Your task to perform on an android device: turn on the 24-hour format for clock Image 0: 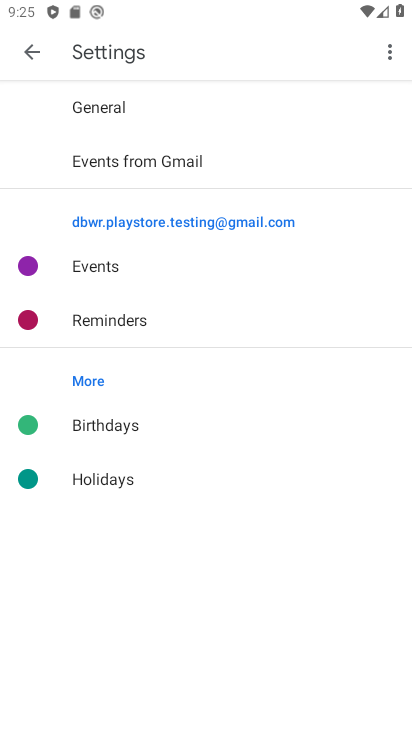
Step 0: press home button
Your task to perform on an android device: turn on the 24-hour format for clock Image 1: 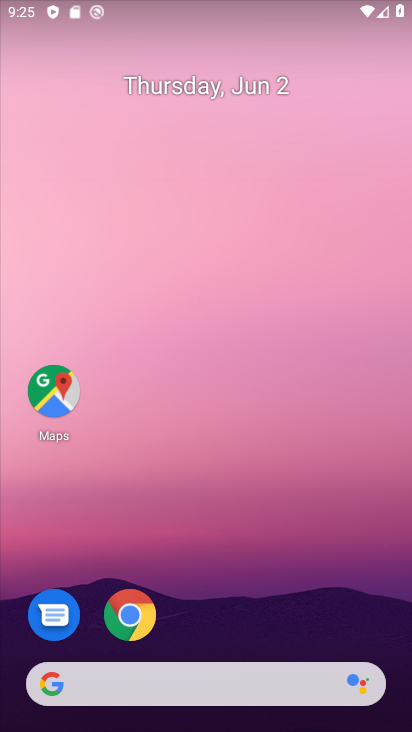
Step 1: drag from (209, 604) to (318, 143)
Your task to perform on an android device: turn on the 24-hour format for clock Image 2: 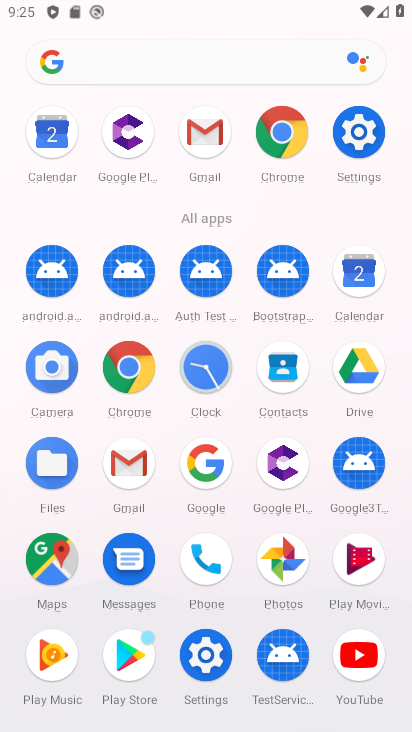
Step 2: click (214, 376)
Your task to perform on an android device: turn on the 24-hour format for clock Image 3: 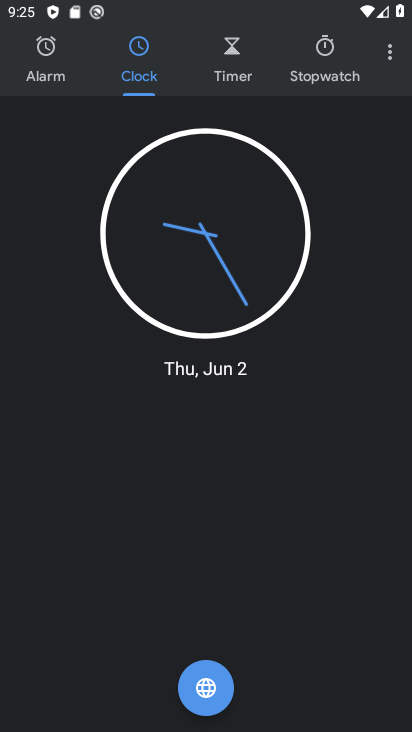
Step 3: click (391, 50)
Your task to perform on an android device: turn on the 24-hour format for clock Image 4: 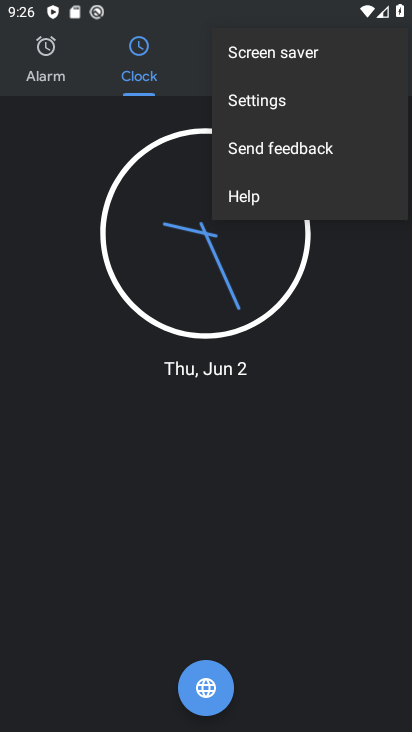
Step 4: click (302, 115)
Your task to perform on an android device: turn on the 24-hour format for clock Image 5: 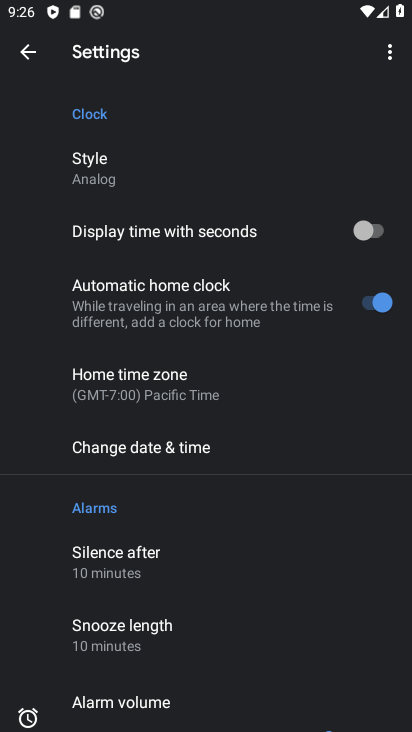
Step 5: click (163, 454)
Your task to perform on an android device: turn on the 24-hour format for clock Image 6: 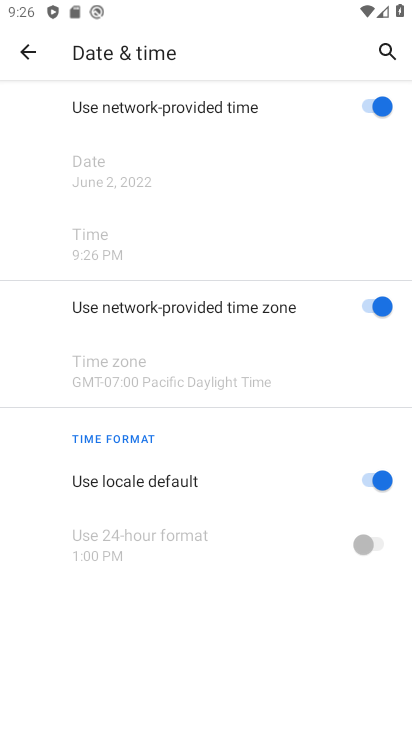
Step 6: click (367, 489)
Your task to perform on an android device: turn on the 24-hour format for clock Image 7: 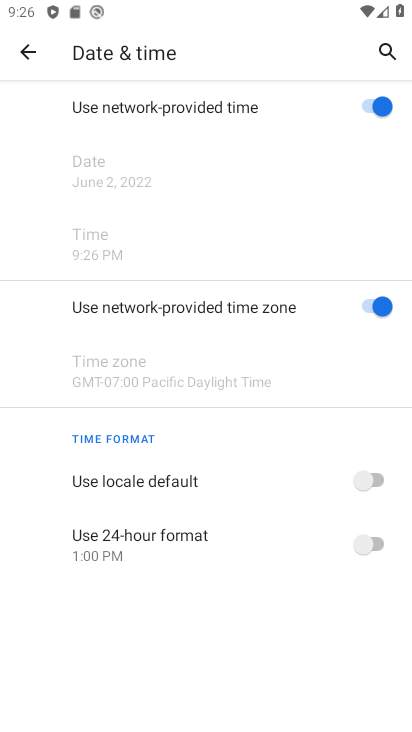
Step 7: click (369, 544)
Your task to perform on an android device: turn on the 24-hour format for clock Image 8: 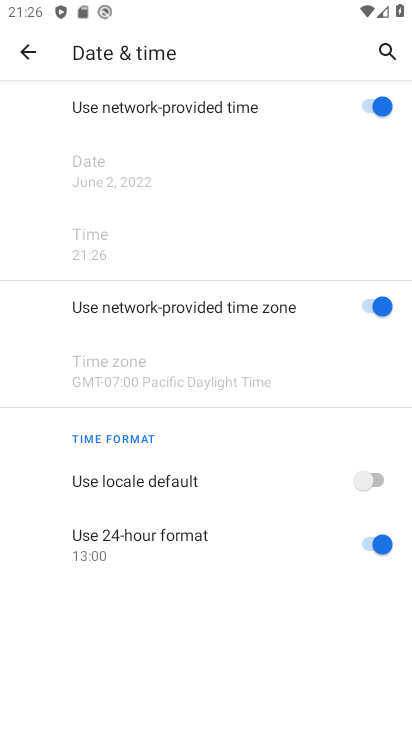
Step 8: task complete